Your task to perform on an android device: Open the stopwatch Image 0: 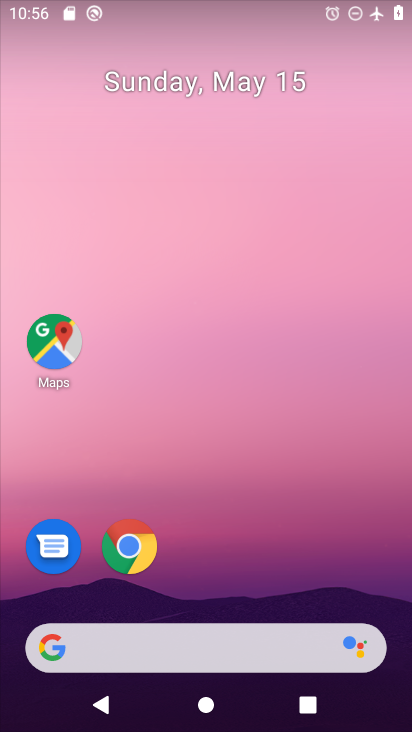
Step 0: drag from (229, 593) to (290, 137)
Your task to perform on an android device: Open the stopwatch Image 1: 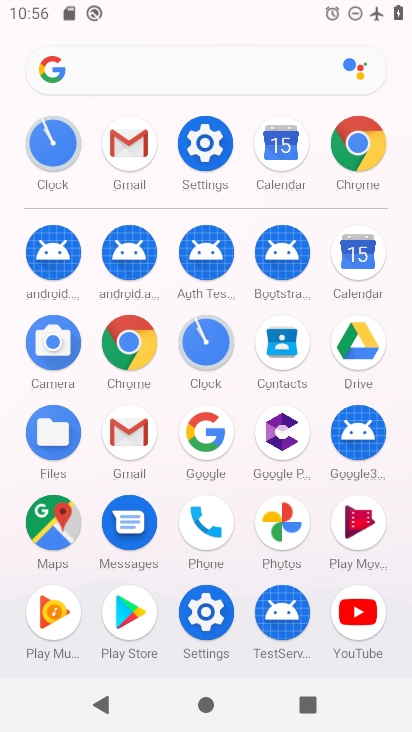
Step 1: click (193, 337)
Your task to perform on an android device: Open the stopwatch Image 2: 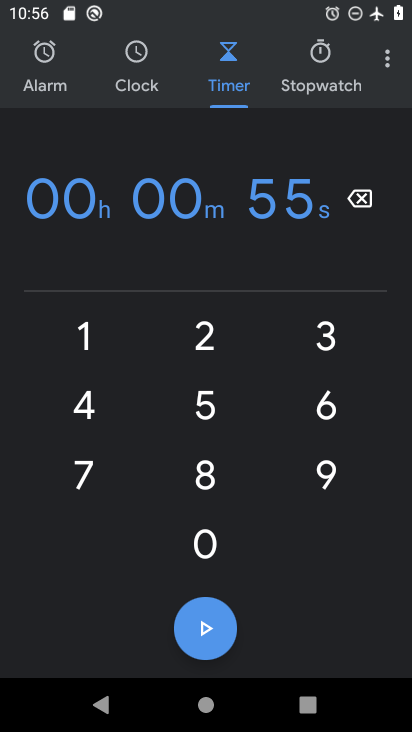
Step 2: click (324, 78)
Your task to perform on an android device: Open the stopwatch Image 3: 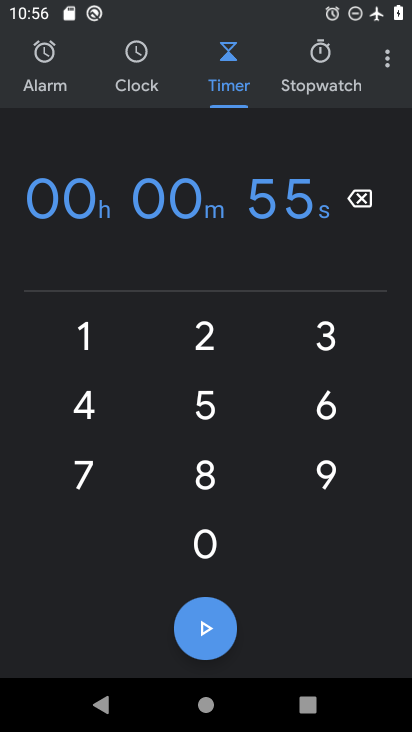
Step 3: click (327, 72)
Your task to perform on an android device: Open the stopwatch Image 4: 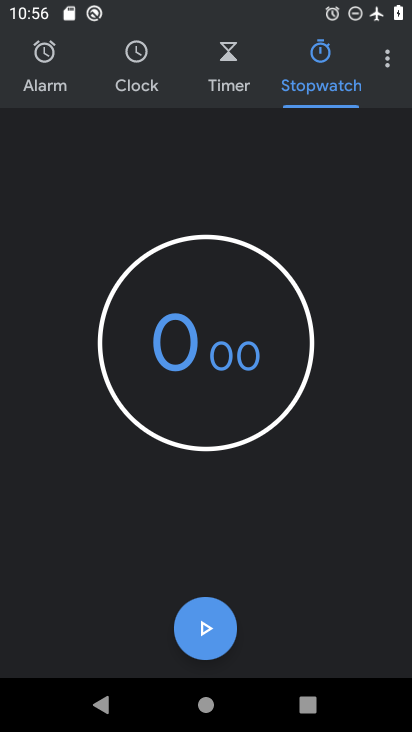
Step 4: click (205, 643)
Your task to perform on an android device: Open the stopwatch Image 5: 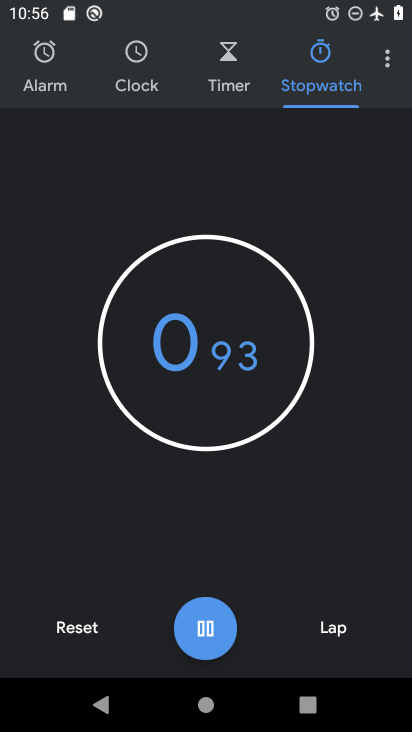
Step 5: click (208, 626)
Your task to perform on an android device: Open the stopwatch Image 6: 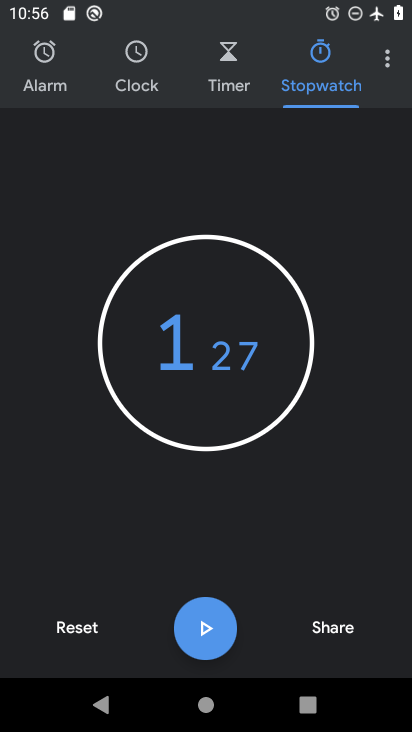
Step 6: task complete